Your task to perform on an android device: Open privacy settings Image 0: 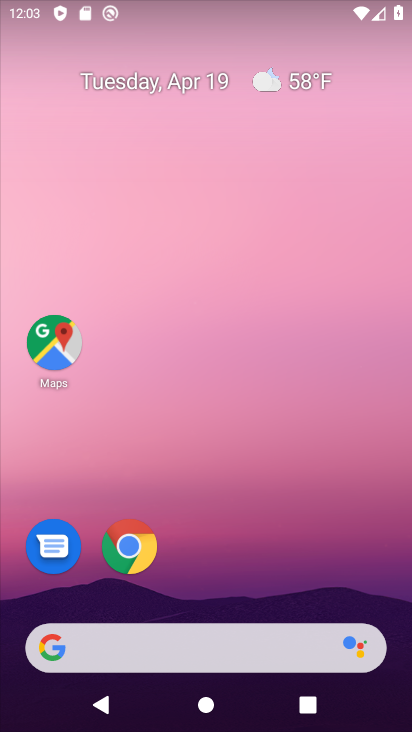
Step 0: drag from (190, 501) to (246, 13)
Your task to perform on an android device: Open privacy settings Image 1: 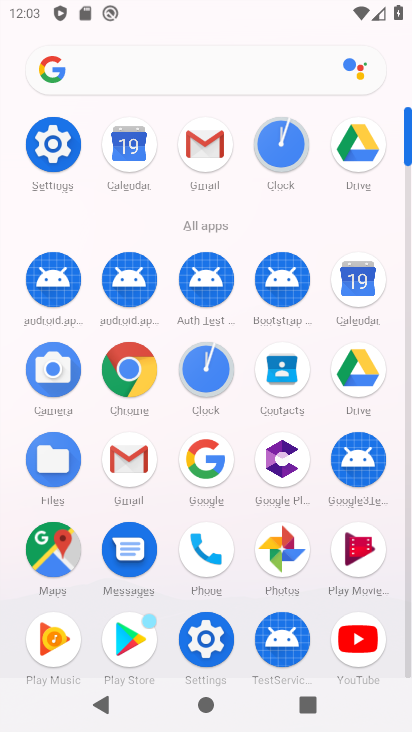
Step 1: click (206, 652)
Your task to perform on an android device: Open privacy settings Image 2: 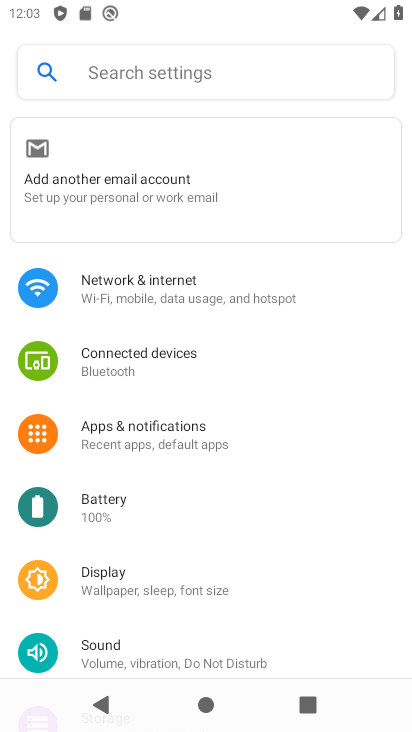
Step 2: drag from (184, 508) to (206, 89)
Your task to perform on an android device: Open privacy settings Image 3: 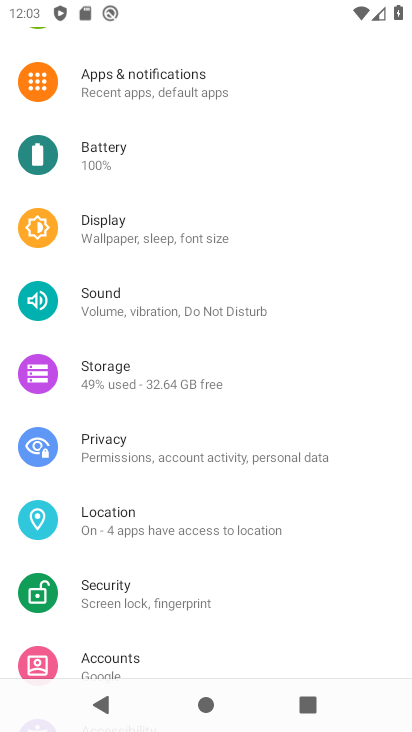
Step 3: click (155, 433)
Your task to perform on an android device: Open privacy settings Image 4: 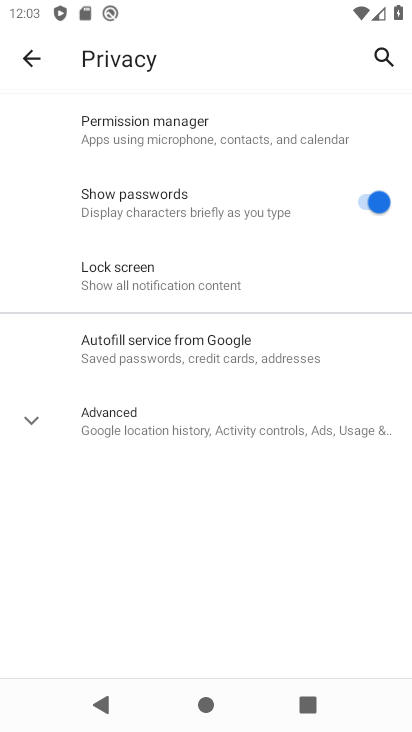
Step 4: task complete